Your task to perform on an android device: allow notifications from all sites in the chrome app Image 0: 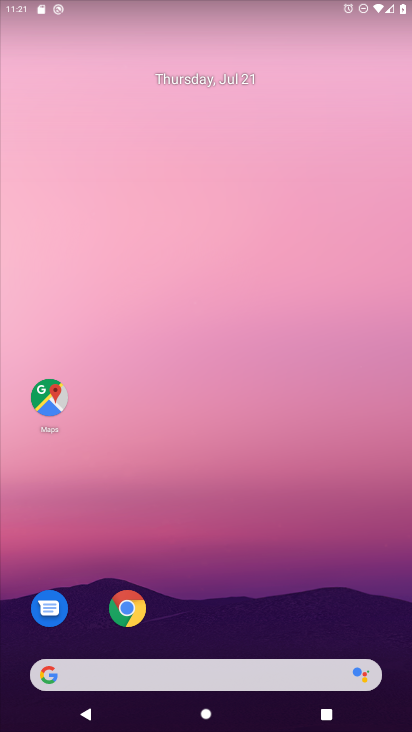
Step 0: drag from (371, 619) to (279, 39)
Your task to perform on an android device: allow notifications from all sites in the chrome app Image 1: 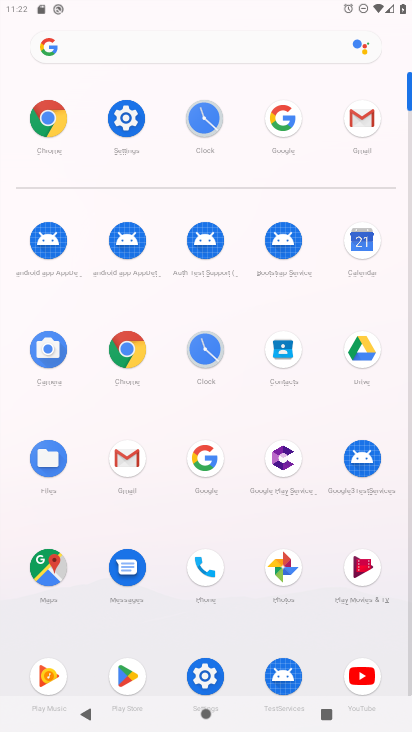
Step 1: click (115, 350)
Your task to perform on an android device: allow notifications from all sites in the chrome app Image 2: 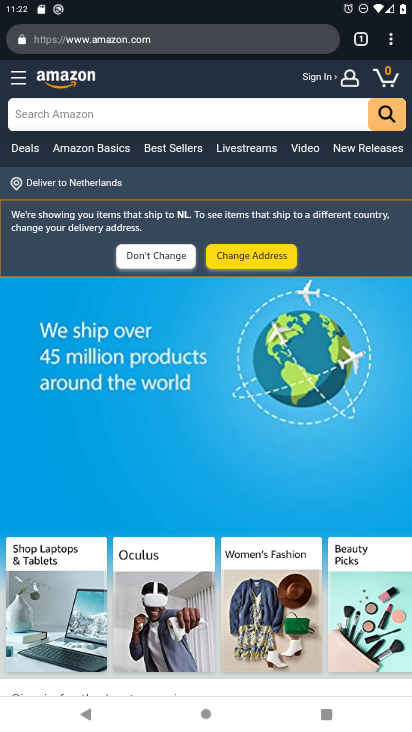
Step 2: click (387, 38)
Your task to perform on an android device: allow notifications from all sites in the chrome app Image 3: 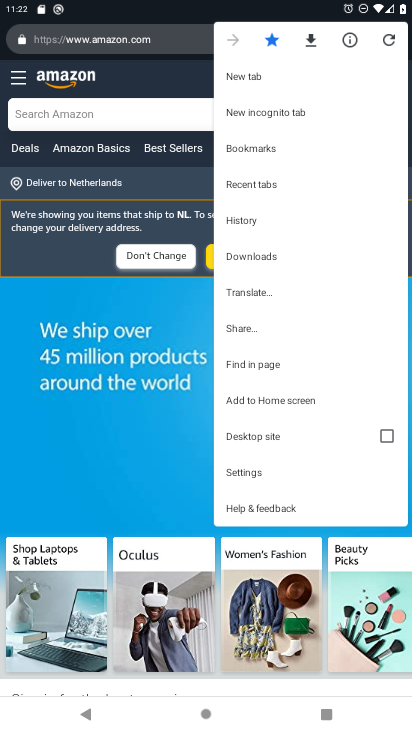
Step 3: click (259, 474)
Your task to perform on an android device: allow notifications from all sites in the chrome app Image 4: 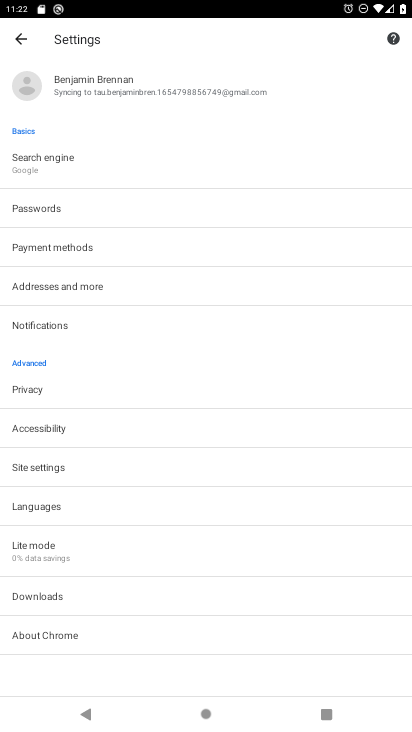
Step 4: click (51, 327)
Your task to perform on an android device: allow notifications from all sites in the chrome app Image 5: 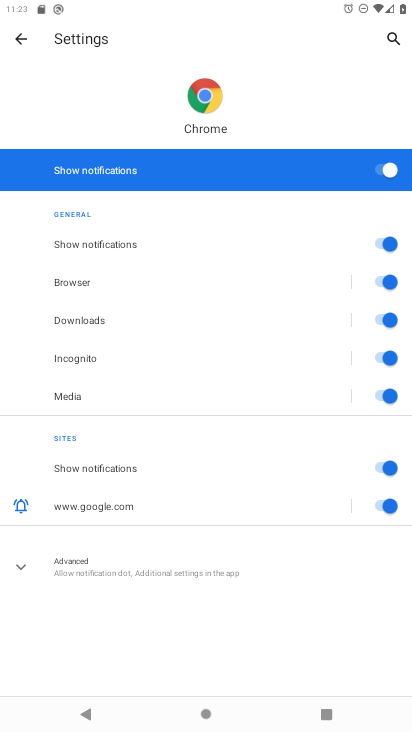
Step 5: task complete